Your task to perform on an android device: Open ESPN.com Image 0: 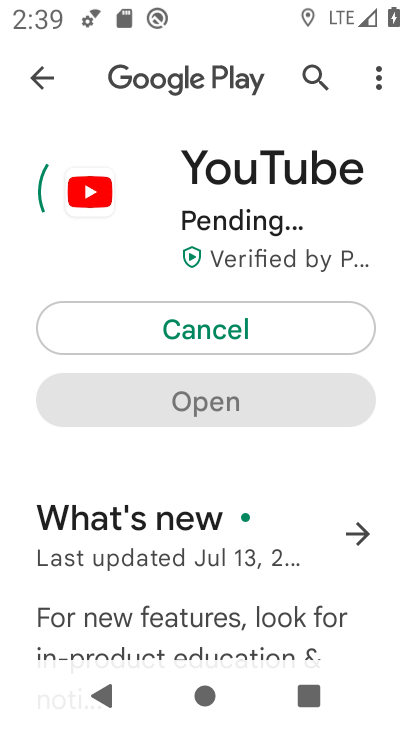
Step 0: press home button
Your task to perform on an android device: Open ESPN.com Image 1: 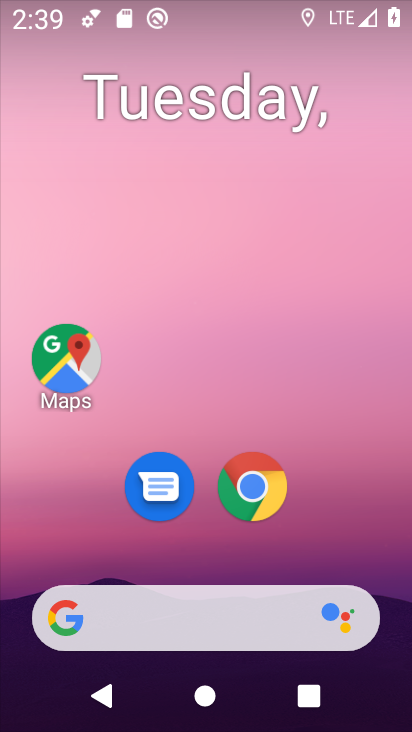
Step 1: drag from (360, 545) to (323, 94)
Your task to perform on an android device: Open ESPN.com Image 2: 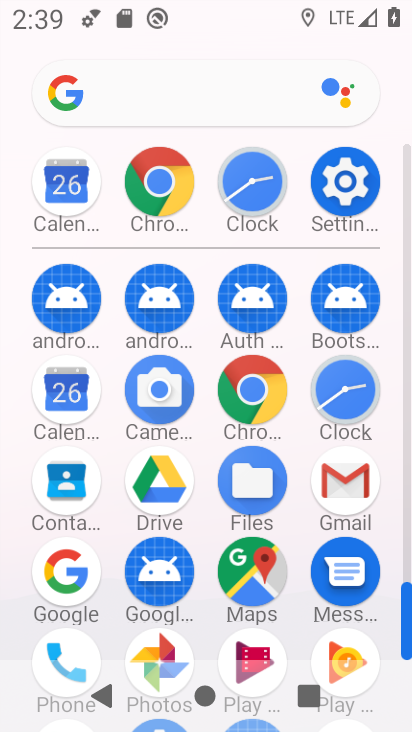
Step 2: click (162, 197)
Your task to perform on an android device: Open ESPN.com Image 3: 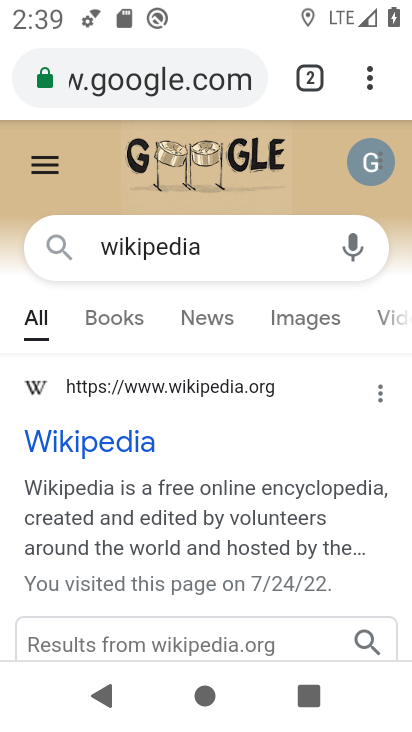
Step 3: click (180, 86)
Your task to perform on an android device: Open ESPN.com Image 4: 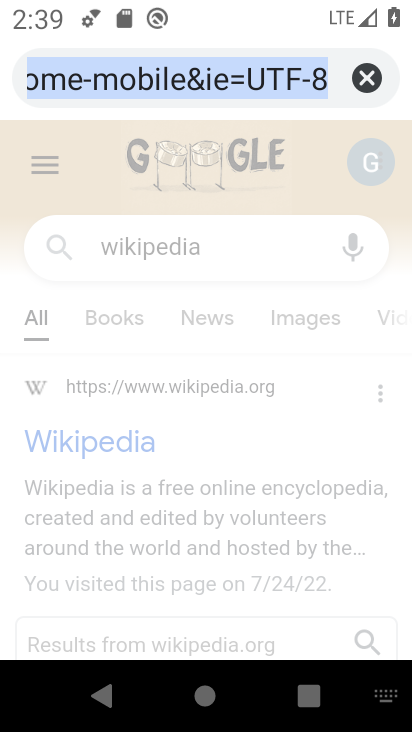
Step 4: type "espn.vom"
Your task to perform on an android device: Open ESPN.com Image 5: 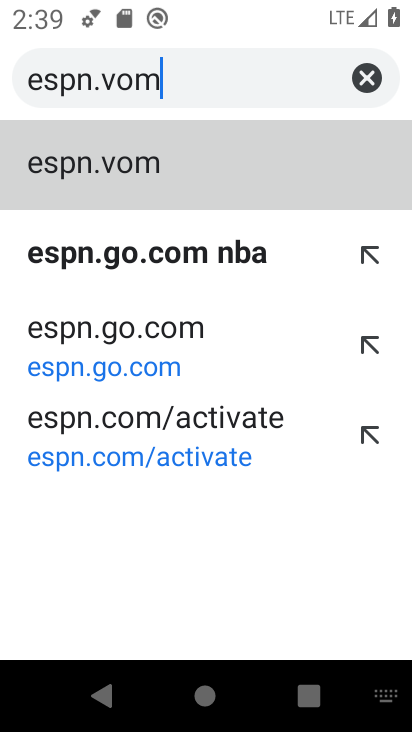
Step 5: click (196, 190)
Your task to perform on an android device: Open ESPN.com Image 6: 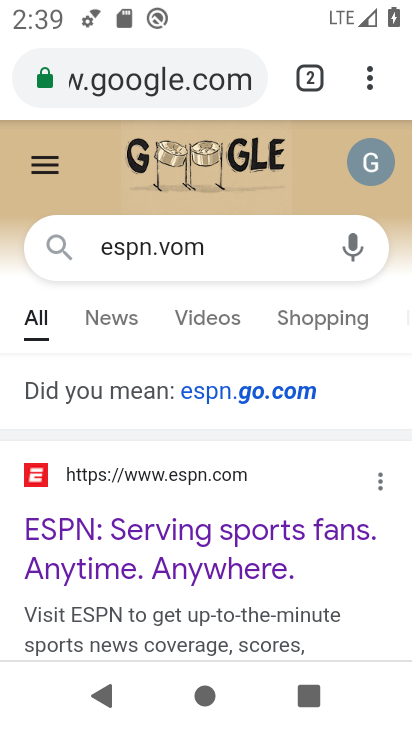
Step 6: task complete